Your task to perform on an android device: Delete all emails from tau.franklinbren.1654798856749@gmail.com Image 0: 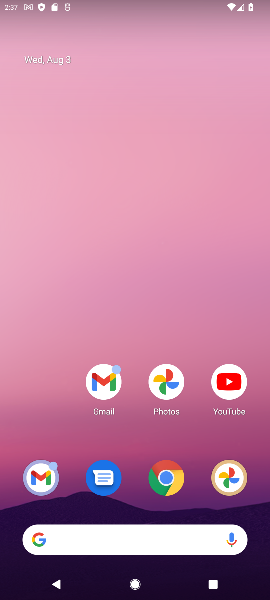
Step 0: drag from (132, 431) to (192, 35)
Your task to perform on an android device: Delete all emails from tau.franklinbren.1654798856749@gmail.com Image 1: 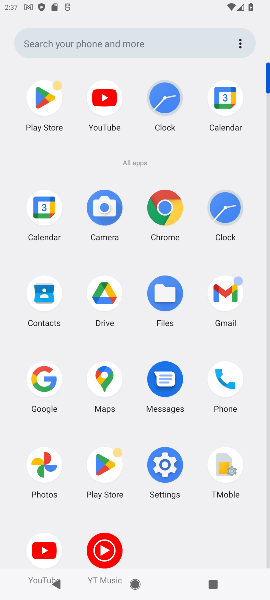
Step 1: click (216, 298)
Your task to perform on an android device: Delete all emails from tau.franklinbren.1654798856749@gmail.com Image 2: 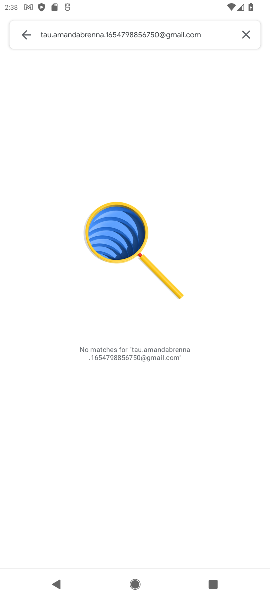
Step 2: click (249, 34)
Your task to perform on an android device: Delete all emails from tau.franklinbren.1654798856749@gmail.com Image 3: 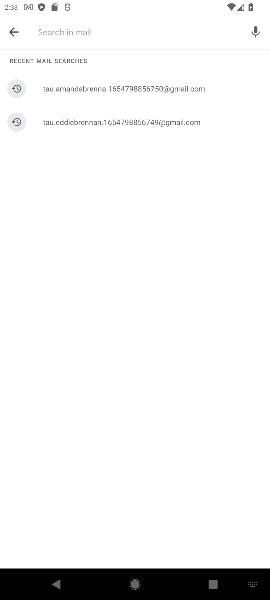
Step 3: type "tau.franklinbren.1654798856749@gmail.com"
Your task to perform on an android device: Delete all emails from tau.franklinbren.1654798856749@gmail.com Image 4: 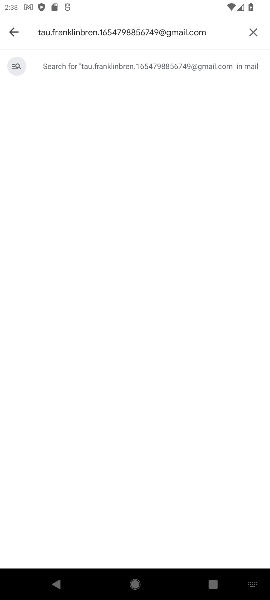
Step 4: click (79, 56)
Your task to perform on an android device: Delete all emails from tau.franklinbren.1654798856749@gmail.com Image 5: 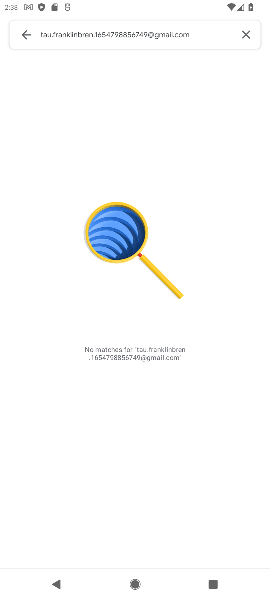
Step 5: task complete